Your task to perform on an android device: Open internet settings Image 0: 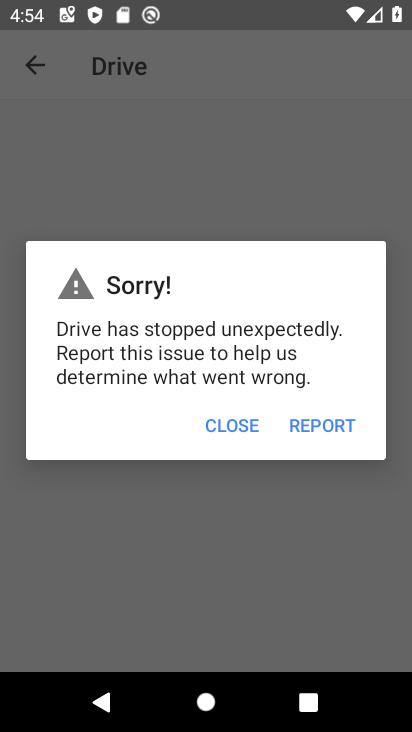
Step 0: press home button
Your task to perform on an android device: Open internet settings Image 1: 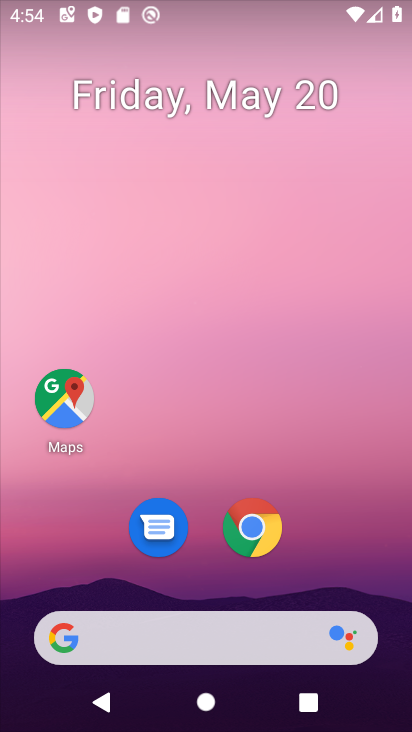
Step 1: drag from (220, 608) to (208, 159)
Your task to perform on an android device: Open internet settings Image 2: 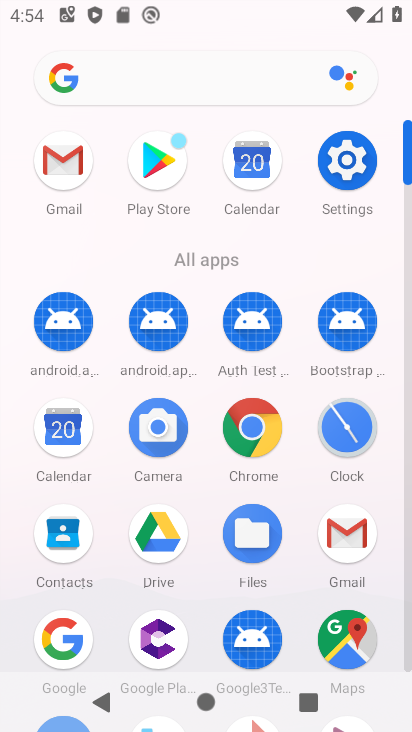
Step 2: click (348, 162)
Your task to perform on an android device: Open internet settings Image 3: 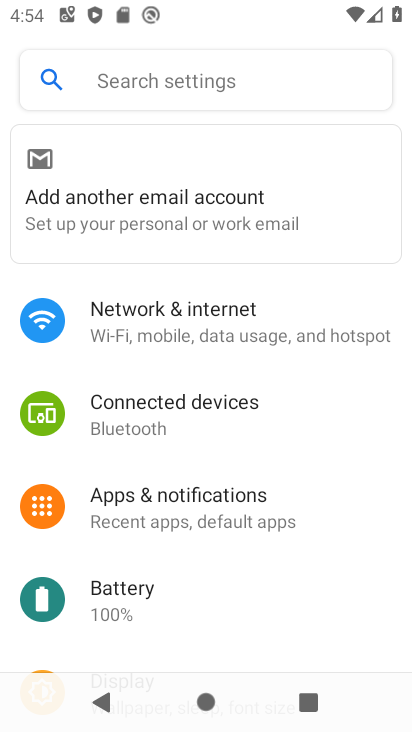
Step 3: click (148, 333)
Your task to perform on an android device: Open internet settings Image 4: 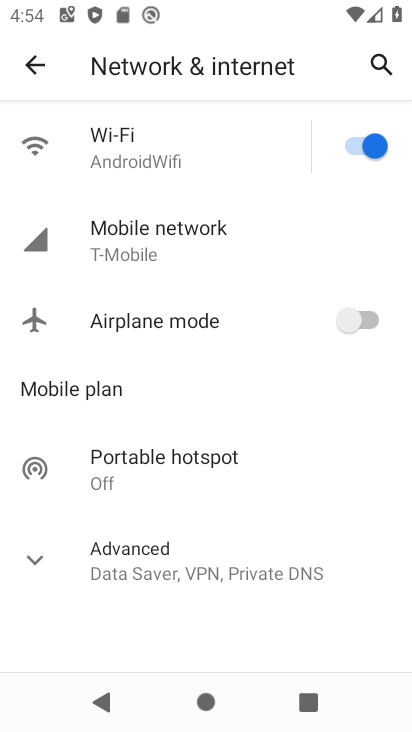
Step 4: click (172, 210)
Your task to perform on an android device: Open internet settings Image 5: 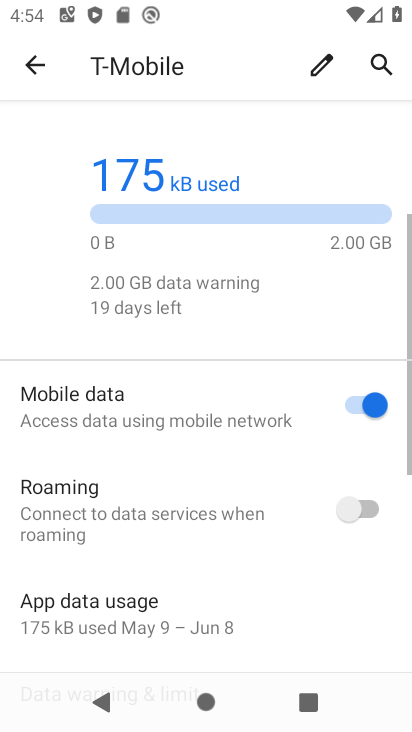
Step 5: drag from (186, 613) to (224, 209)
Your task to perform on an android device: Open internet settings Image 6: 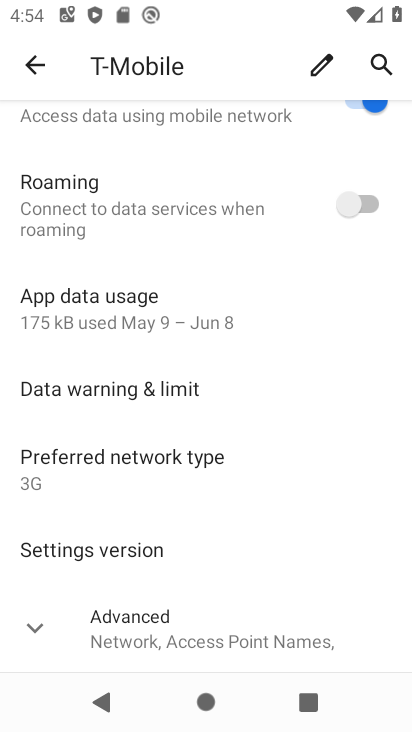
Step 6: click (151, 623)
Your task to perform on an android device: Open internet settings Image 7: 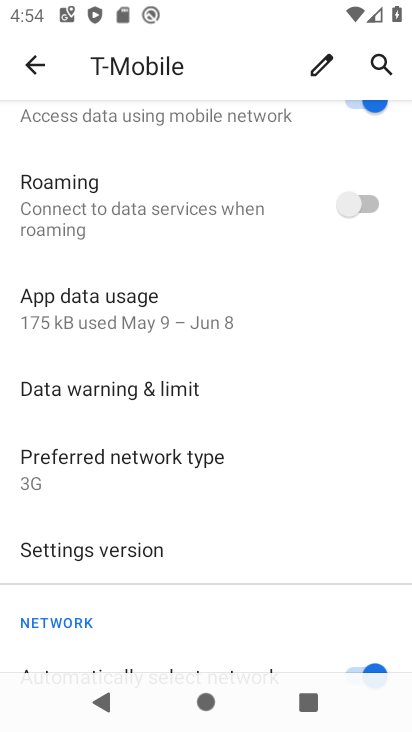
Step 7: click (23, 66)
Your task to perform on an android device: Open internet settings Image 8: 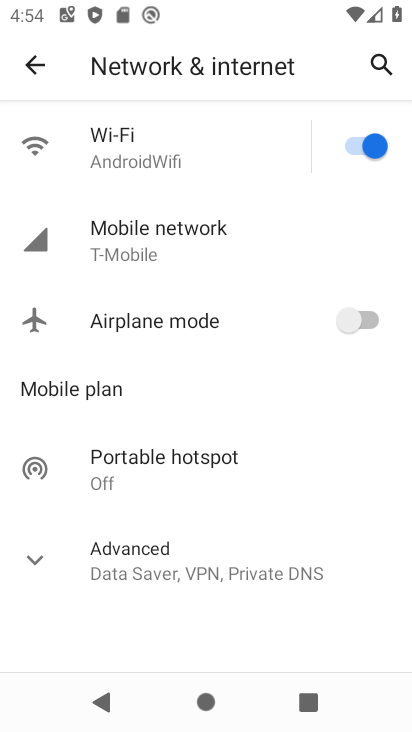
Step 8: click (106, 546)
Your task to perform on an android device: Open internet settings Image 9: 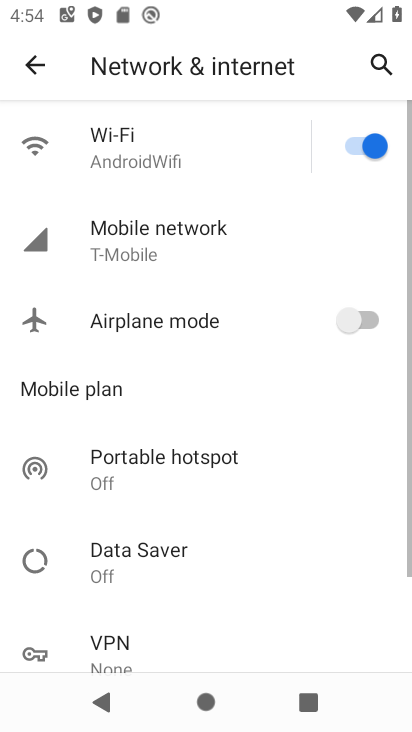
Step 9: task complete